Your task to perform on an android device: toggle pop-ups in chrome Image 0: 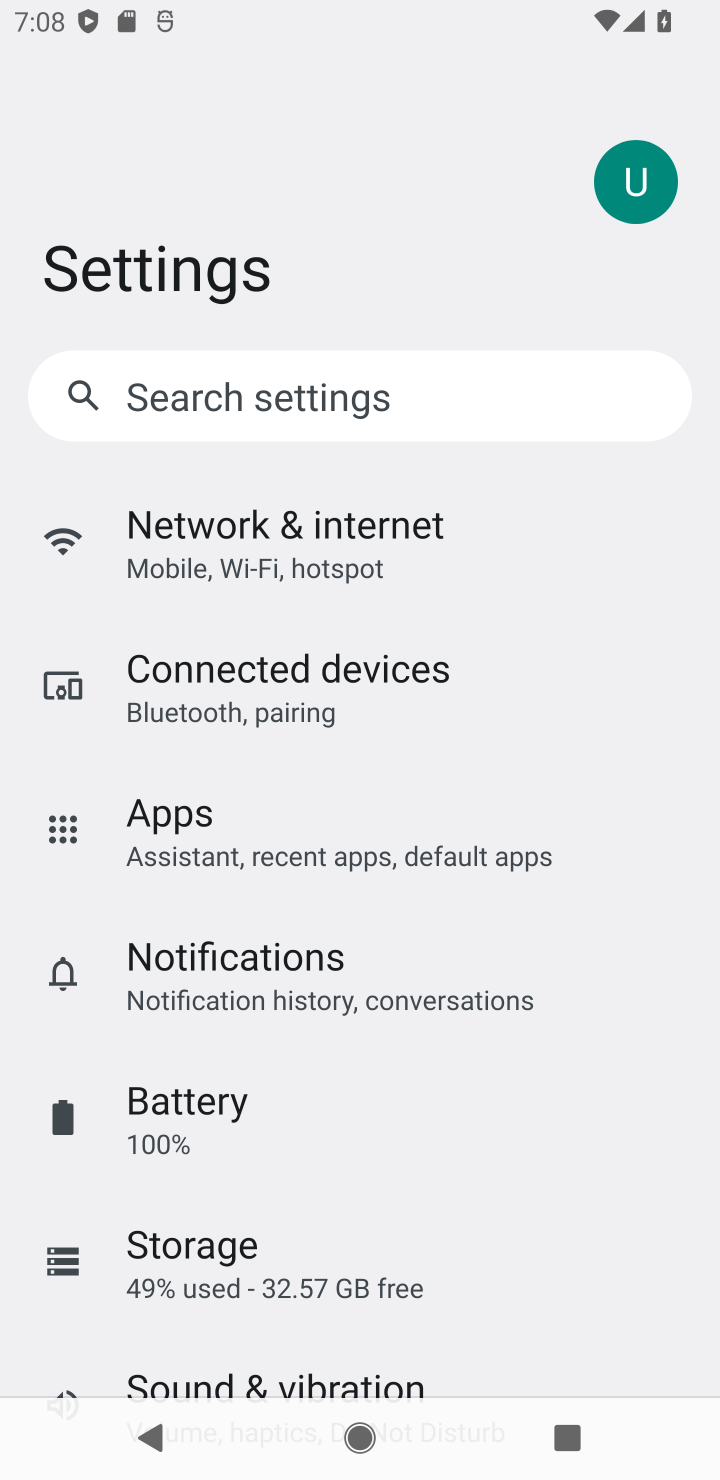
Step 0: press back button
Your task to perform on an android device: toggle pop-ups in chrome Image 1: 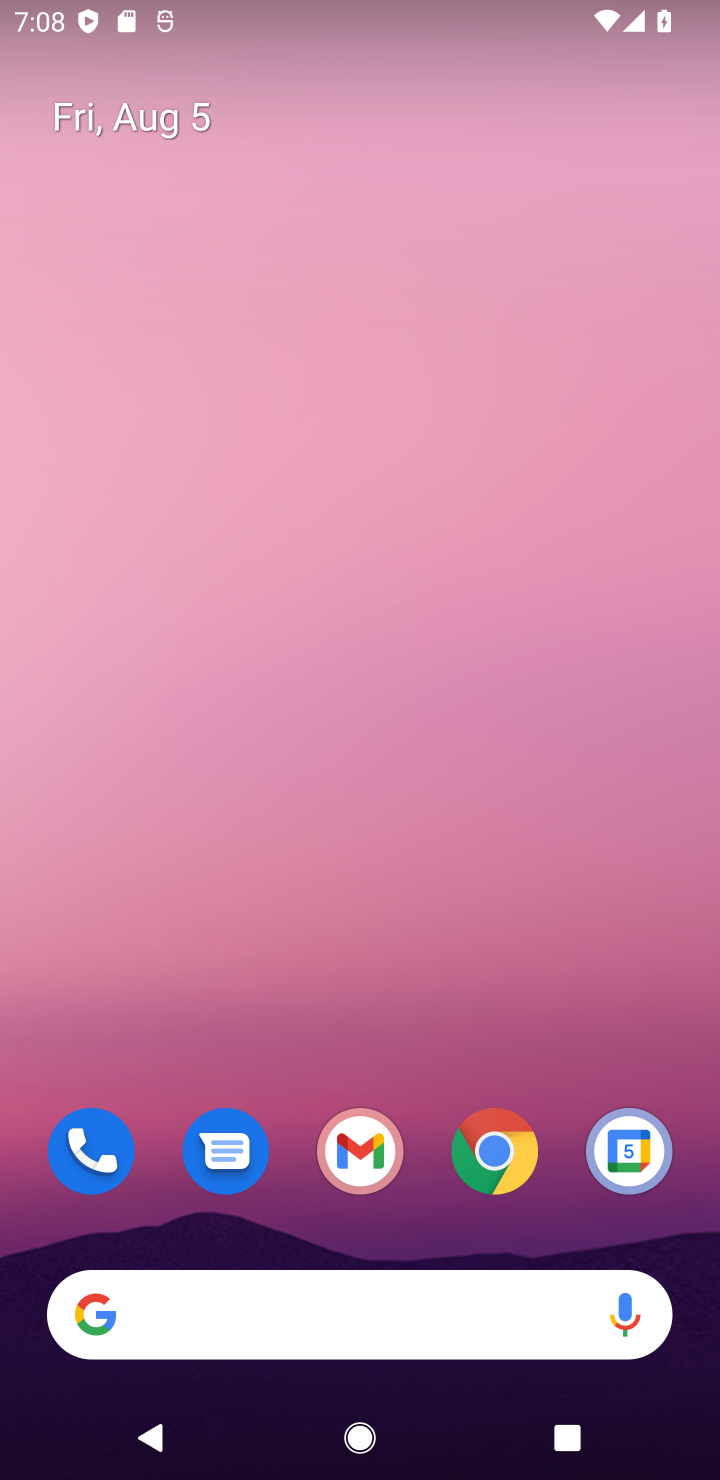
Step 1: click (517, 1150)
Your task to perform on an android device: toggle pop-ups in chrome Image 2: 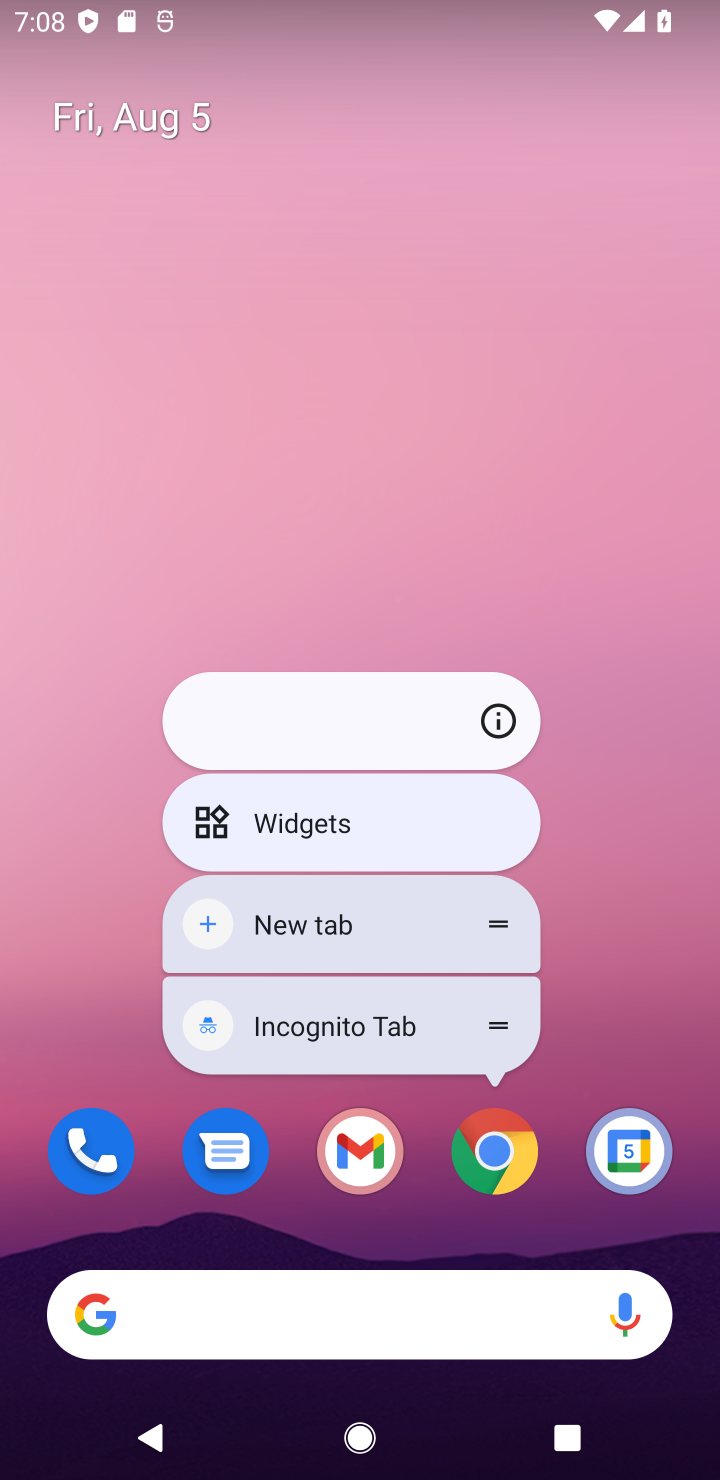
Step 2: click (492, 1129)
Your task to perform on an android device: toggle pop-ups in chrome Image 3: 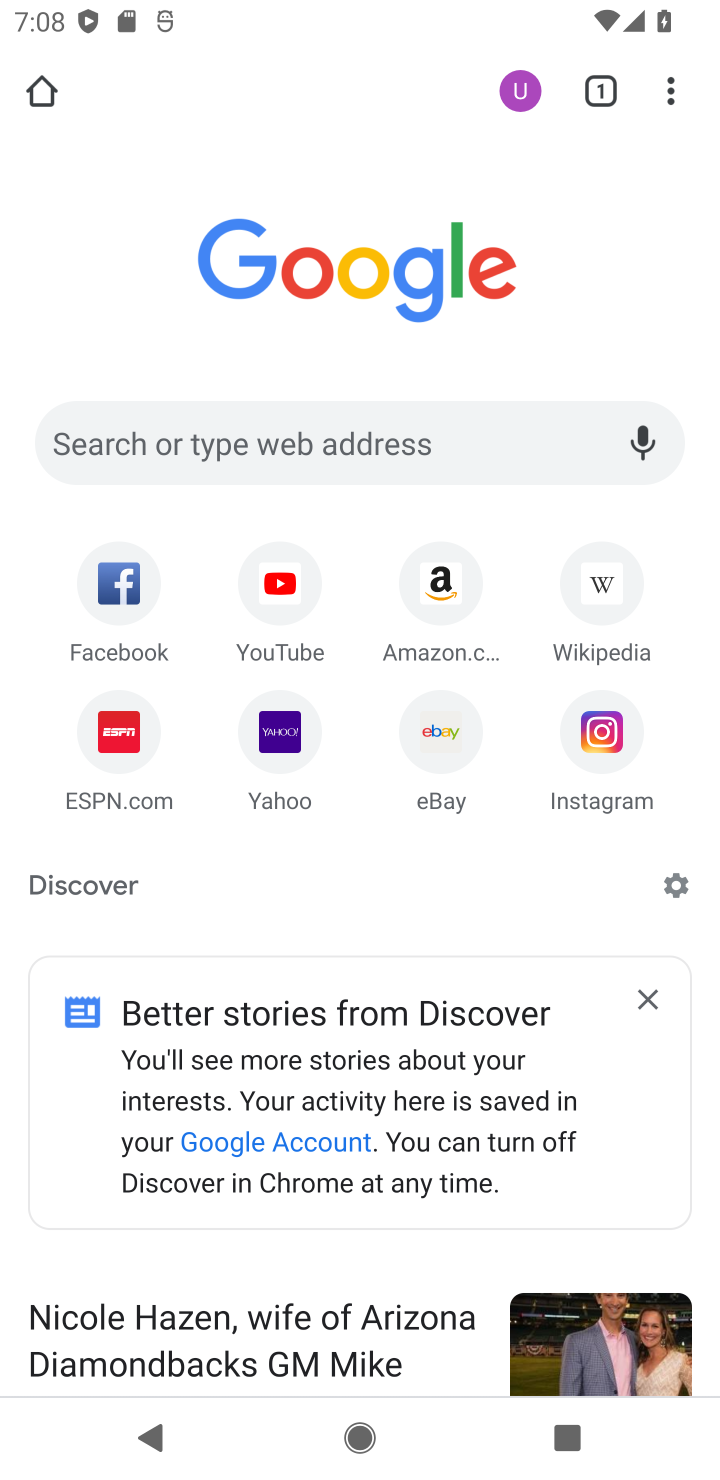
Step 3: drag from (665, 103) to (380, 805)
Your task to perform on an android device: toggle pop-ups in chrome Image 4: 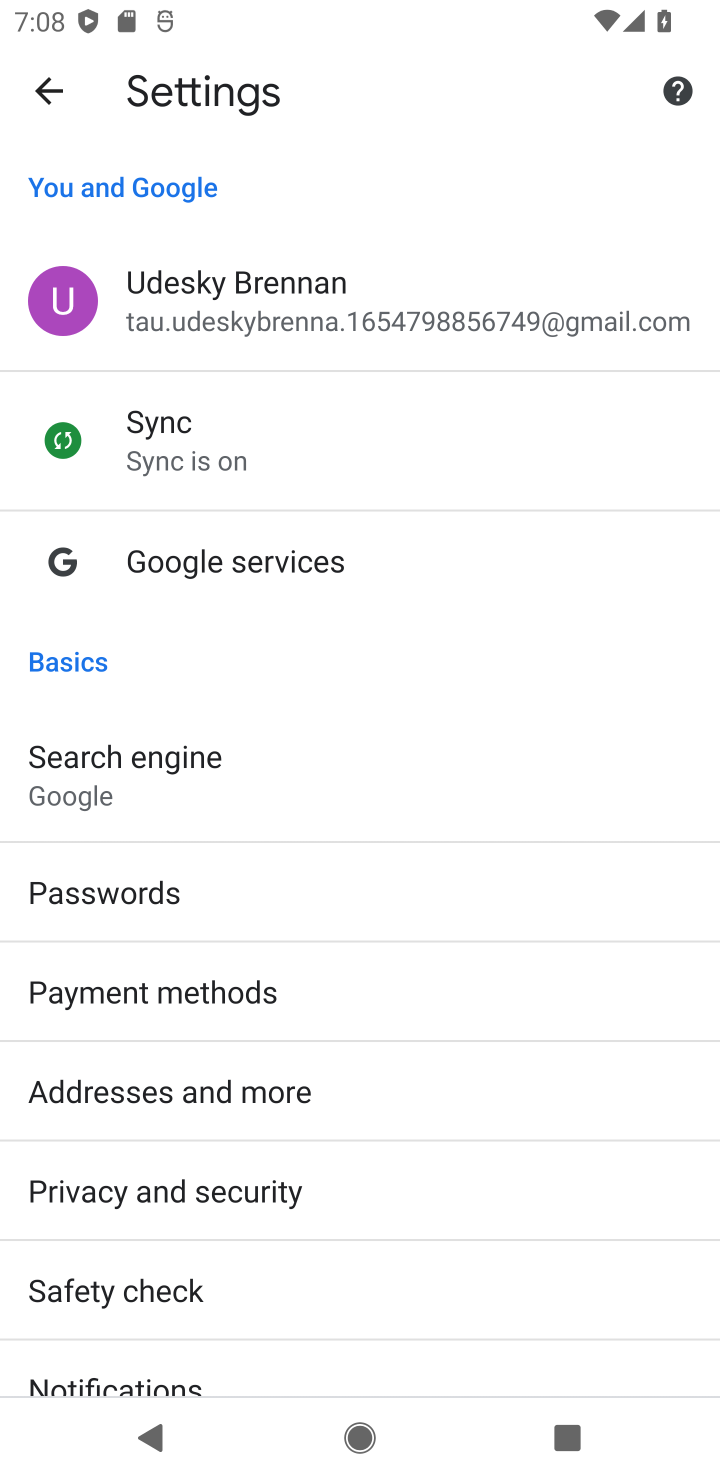
Step 4: drag from (170, 1249) to (269, 135)
Your task to perform on an android device: toggle pop-ups in chrome Image 5: 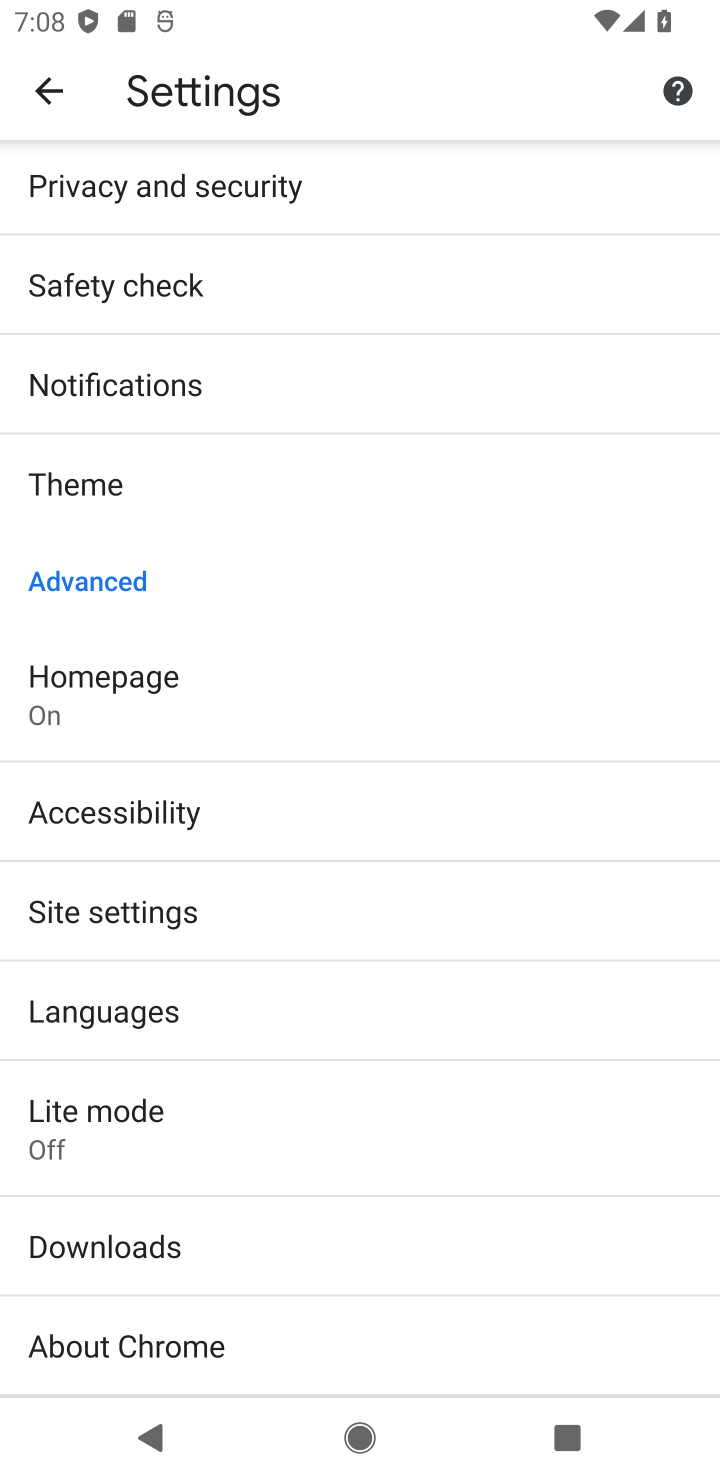
Step 5: click (164, 925)
Your task to perform on an android device: toggle pop-ups in chrome Image 6: 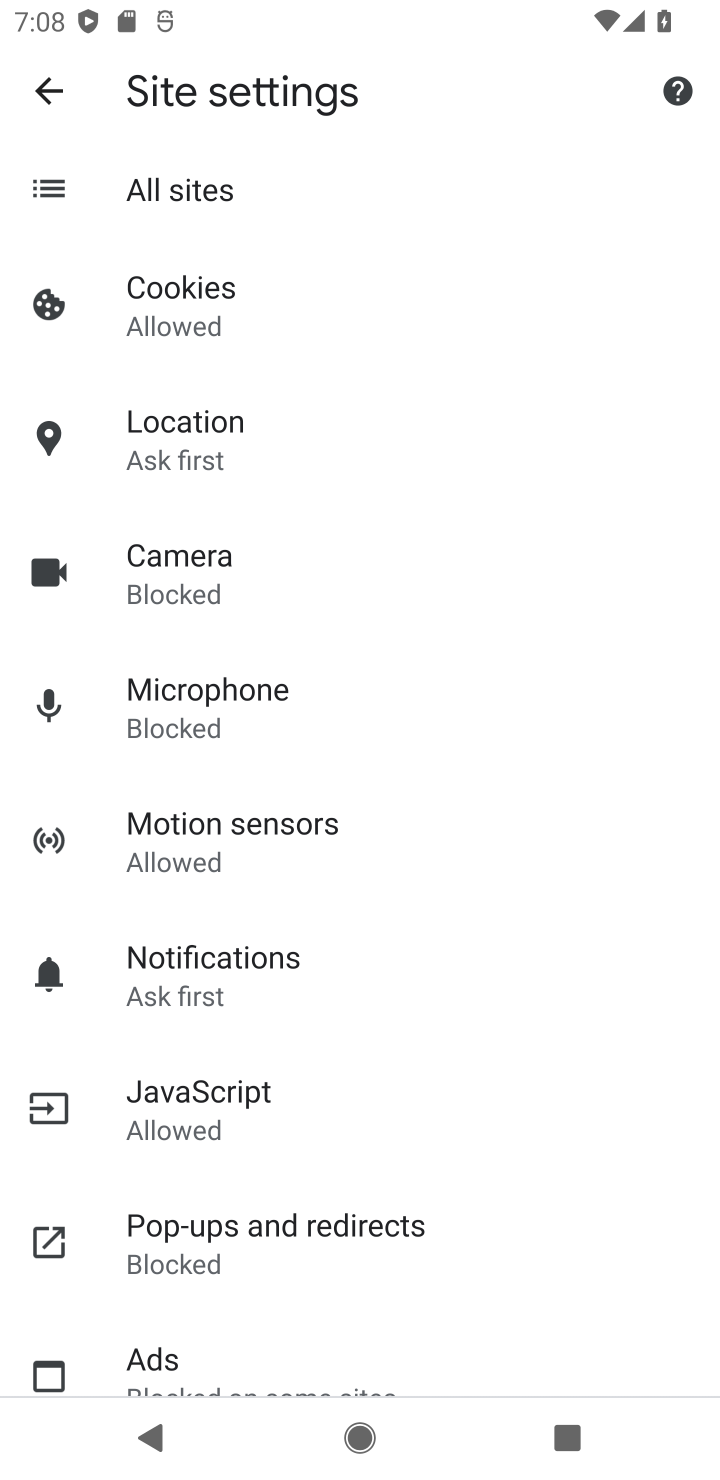
Step 6: click (235, 1212)
Your task to perform on an android device: toggle pop-ups in chrome Image 7: 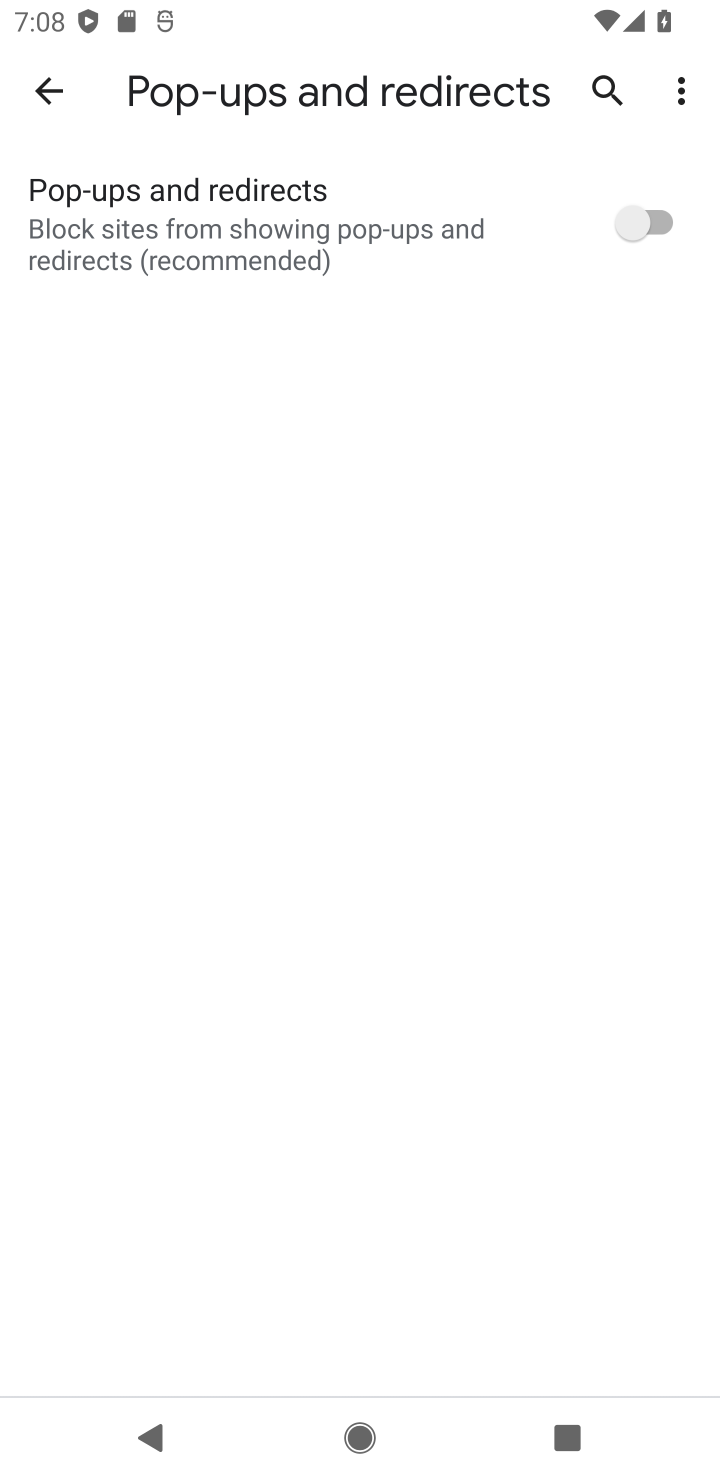
Step 7: click (616, 221)
Your task to perform on an android device: toggle pop-ups in chrome Image 8: 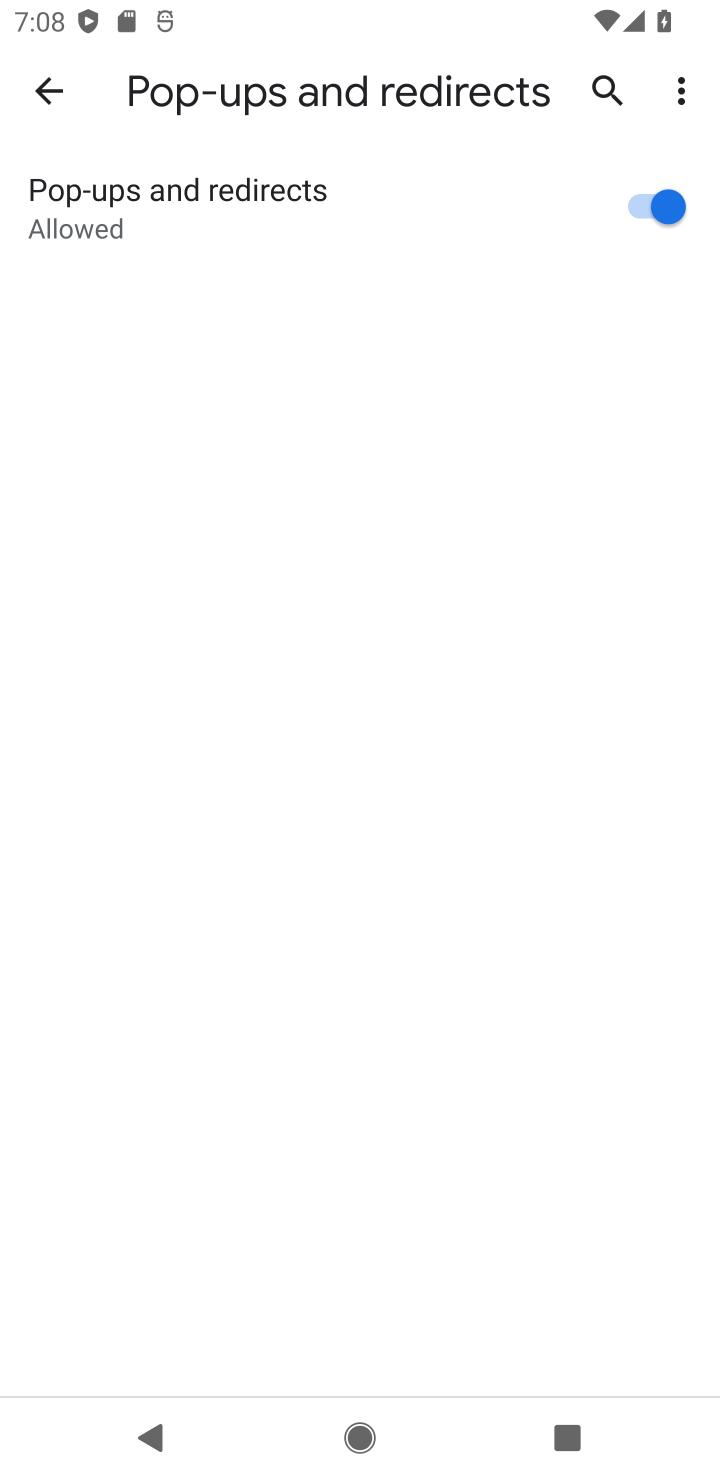
Step 8: task complete